Your task to perform on an android device: toggle priority inbox in the gmail app Image 0: 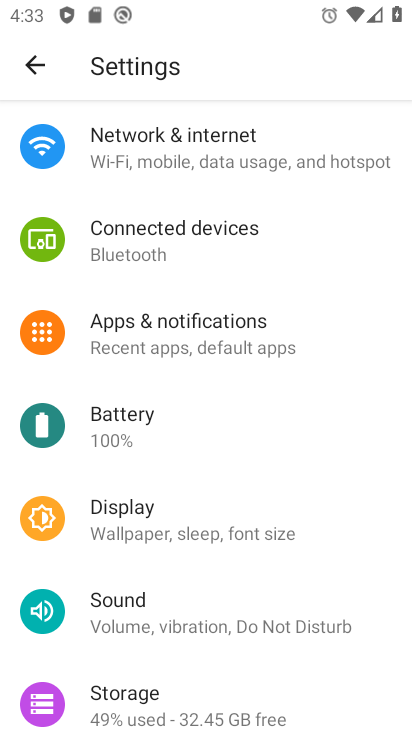
Step 0: press home button
Your task to perform on an android device: toggle priority inbox in the gmail app Image 1: 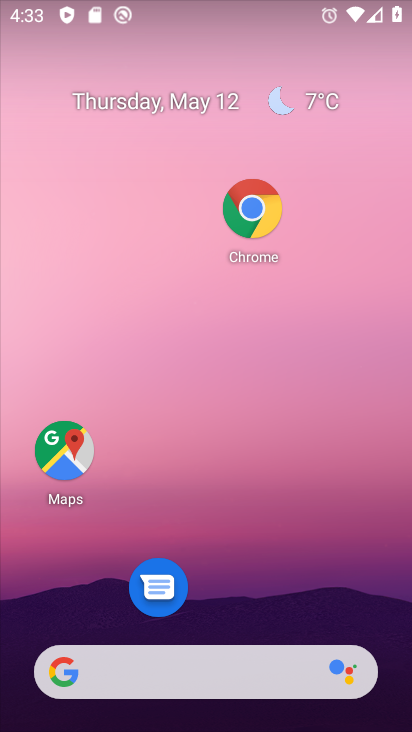
Step 1: drag from (260, 232) to (307, 4)
Your task to perform on an android device: toggle priority inbox in the gmail app Image 2: 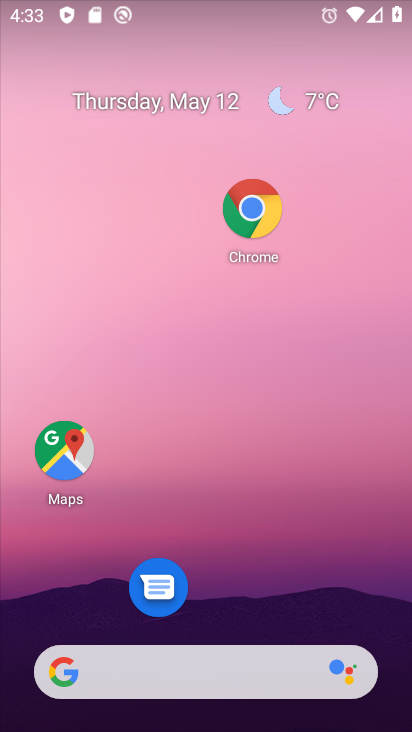
Step 2: drag from (268, 592) to (339, 2)
Your task to perform on an android device: toggle priority inbox in the gmail app Image 3: 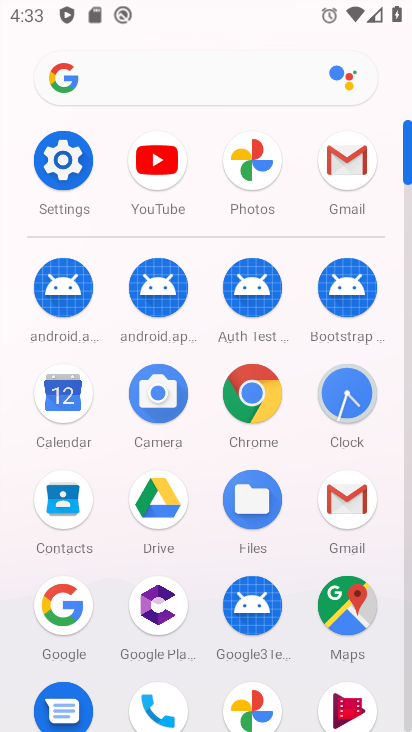
Step 3: click (357, 204)
Your task to perform on an android device: toggle priority inbox in the gmail app Image 4: 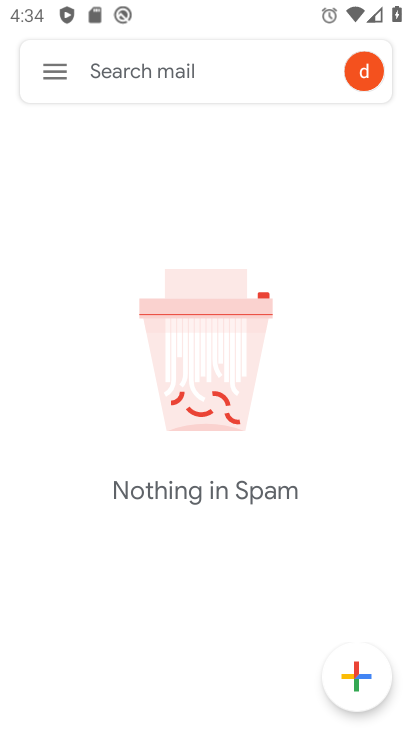
Step 4: click (56, 69)
Your task to perform on an android device: toggle priority inbox in the gmail app Image 5: 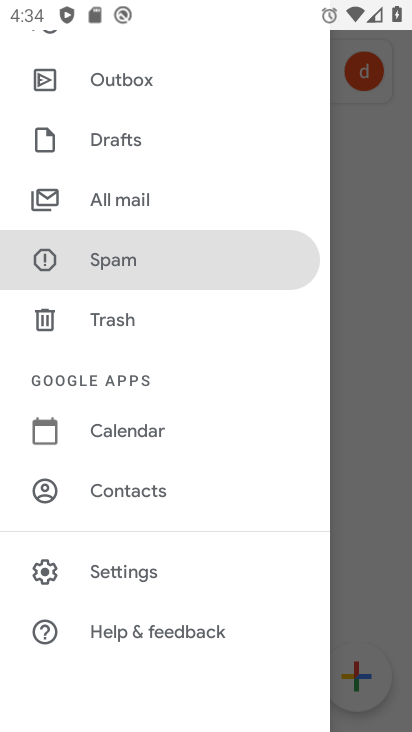
Step 5: click (141, 576)
Your task to perform on an android device: toggle priority inbox in the gmail app Image 6: 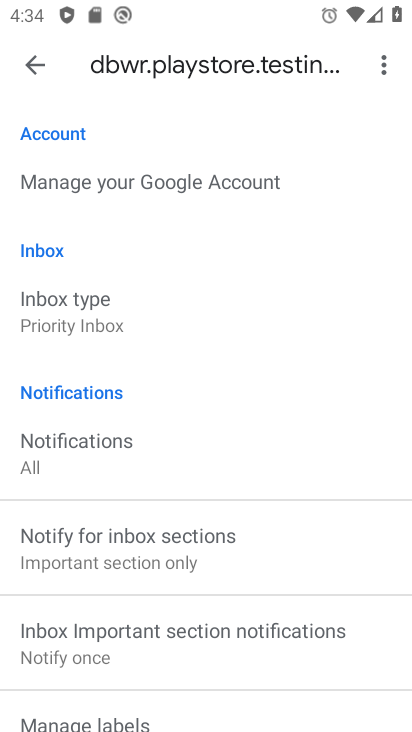
Step 6: task complete